Your task to perform on an android device: Open Chrome and go to the settings page Image 0: 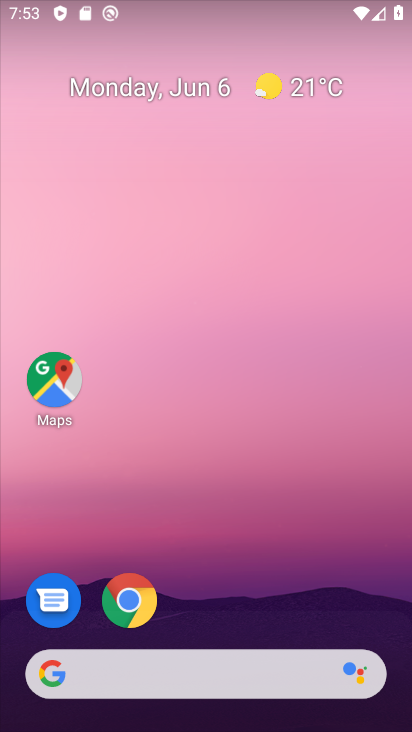
Step 0: click (123, 596)
Your task to perform on an android device: Open Chrome and go to the settings page Image 1: 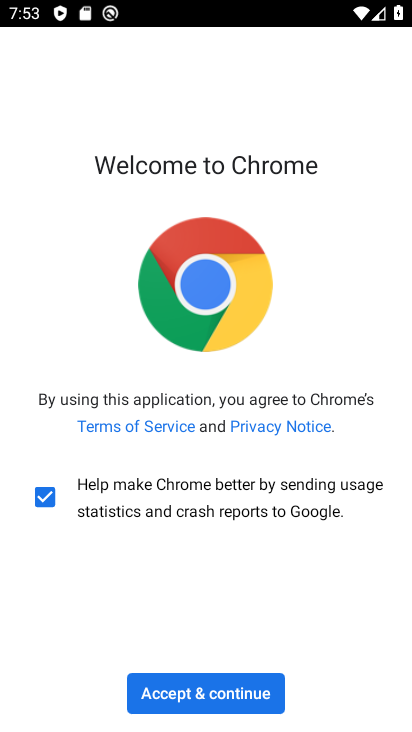
Step 1: click (209, 687)
Your task to perform on an android device: Open Chrome and go to the settings page Image 2: 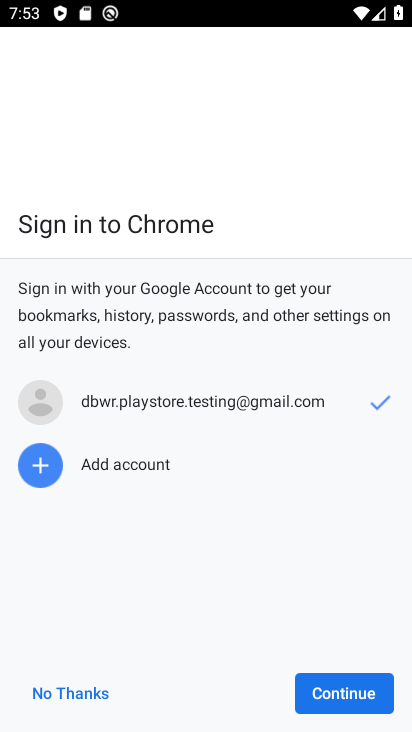
Step 2: click (349, 699)
Your task to perform on an android device: Open Chrome and go to the settings page Image 3: 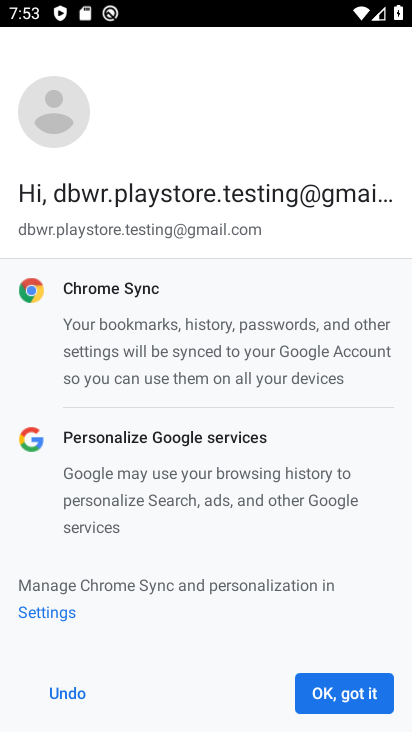
Step 3: click (349, 699)
Your task to perform on an android device: Open Chrome and go to the settings page Image 4: 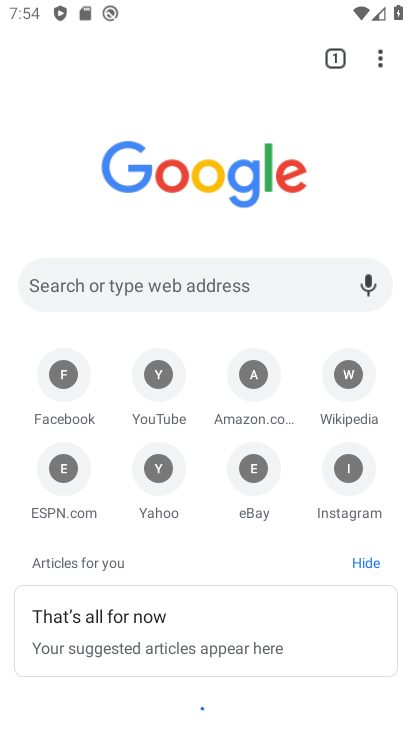
Step 4: click (378, 63)
Your task to perform on an android device: Open Chrome and go to the settings page Image 5: 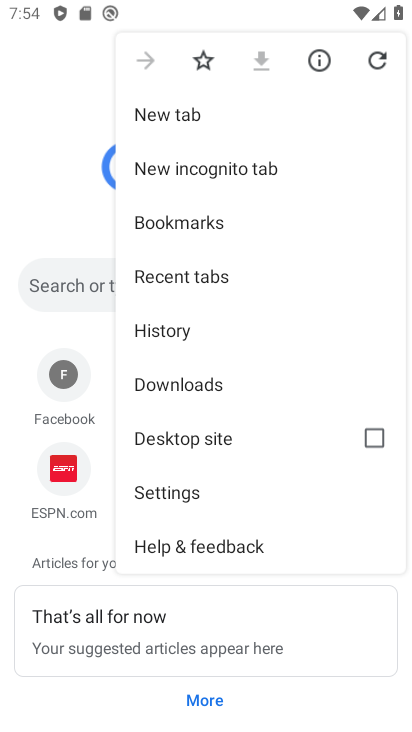
Step 5: click (172, 489)
Your task to perform on an android device: Open Chrome and go to the settings page Image 6: 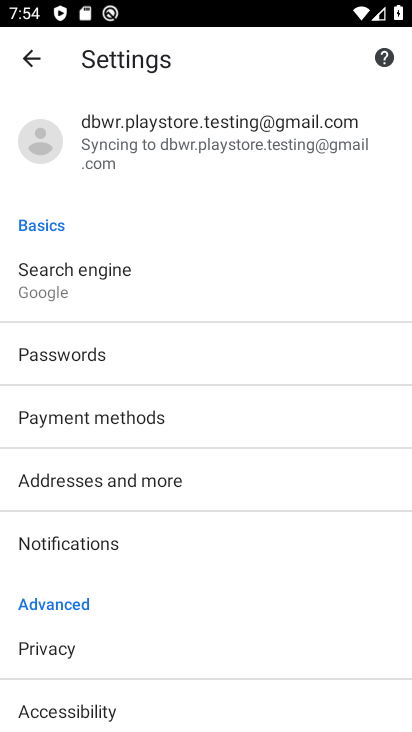
Step 6: task complete